Your task to perform on an android device: change the clock style Image 0: 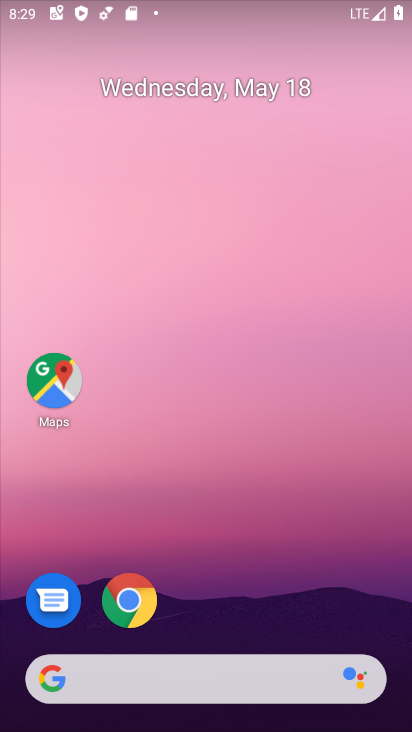
Step 0: drag from (278, 430) to (305, 72)
Your task to perform on an android device: change the clock style Image 1: 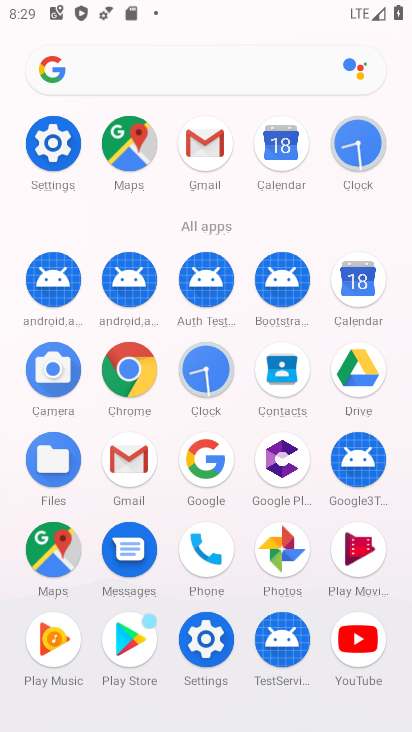
Step 1: click (358, 148)
Your task to perform on an android device: change the clock style Image 2: 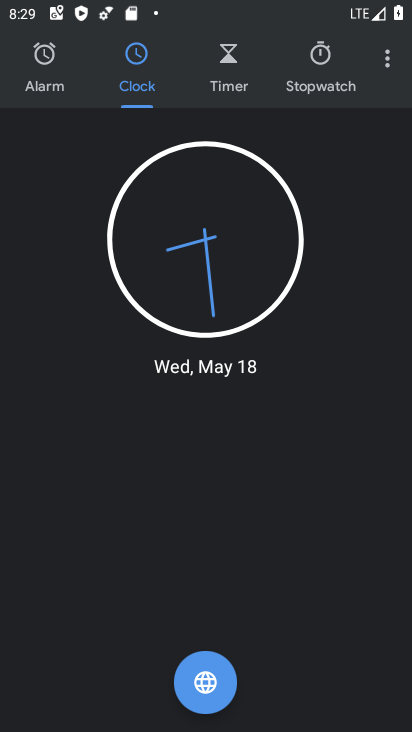
Step 2: click (386, 60)
Your task to perform on an android device: change the clock style Image 3: 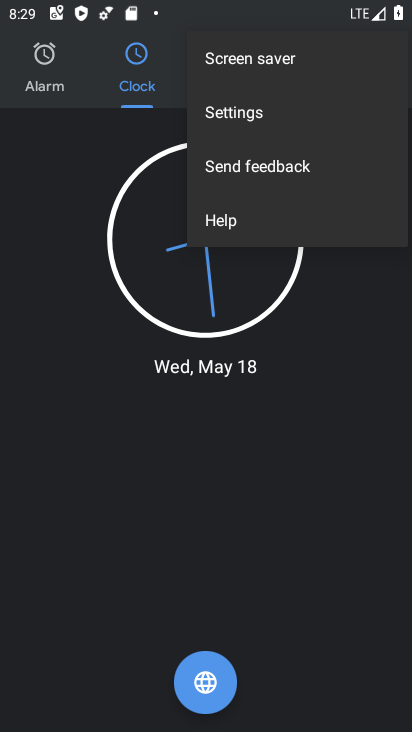
Step 3: click (259, 120)
Your task to perform on an android device: change the clock style Image 4: 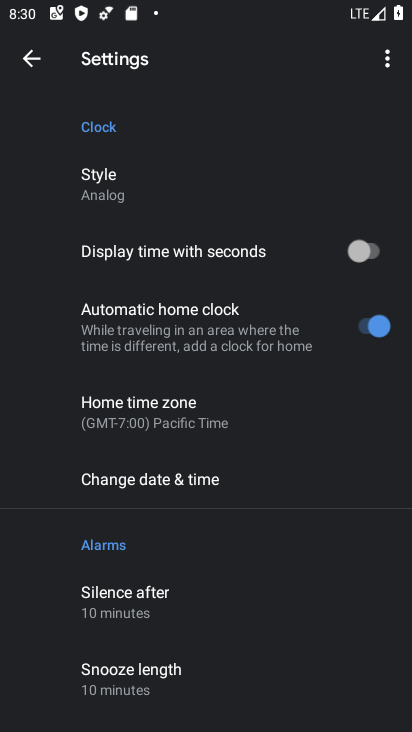
Step 4: click (145, 183)
Your task to perform on an android device: change the clock style Image 5: 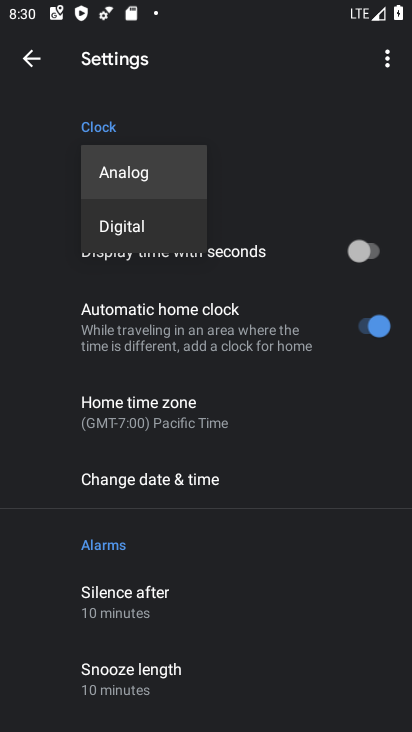
Step 5: click (120, 232)
Your task to perform on an android device: change the clock style Image 6: 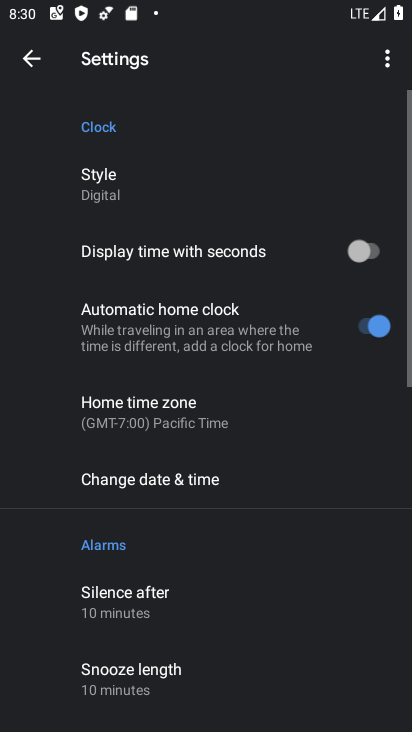
Step 6: task complete